Your task to perform on an android device: Toggle the flashlight Image 0: 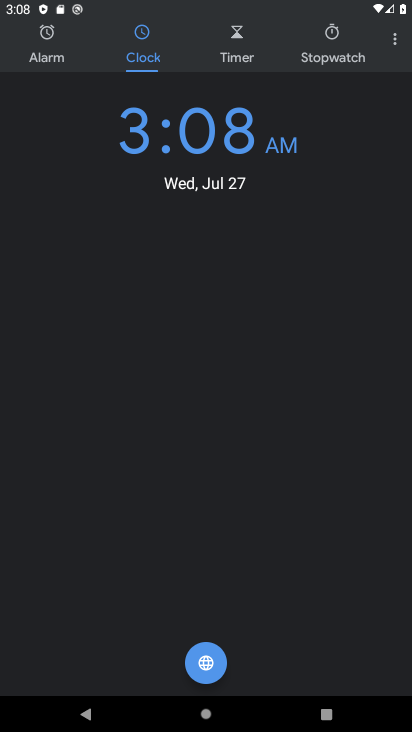
Step 0: press home button
Your task to perform on an android device: Toggle the flashlight Image 1: 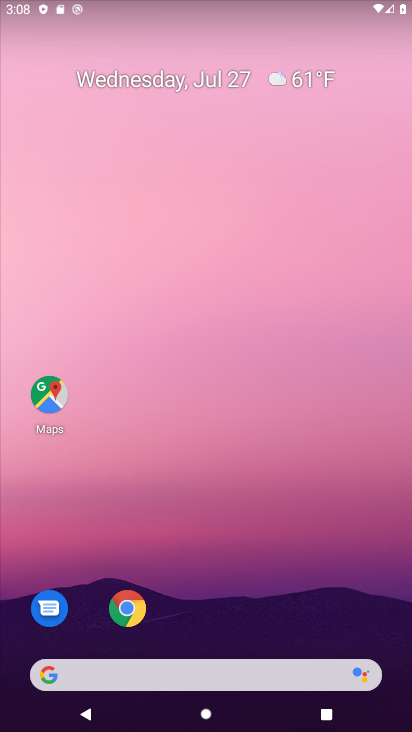
Step 1: drag from (232, 669) to (252, 158)
Your task to perform on an android device: Toggle the flashlight Image 2: 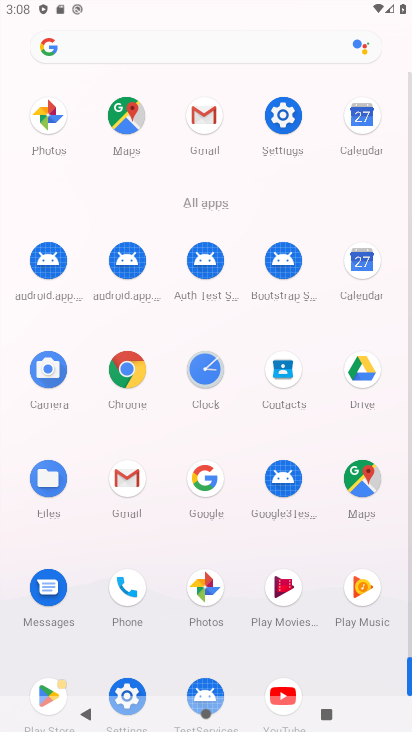
Step 2: click (280, 120)
Your task to perform on an android device: Toggle the flashlight Image 3: 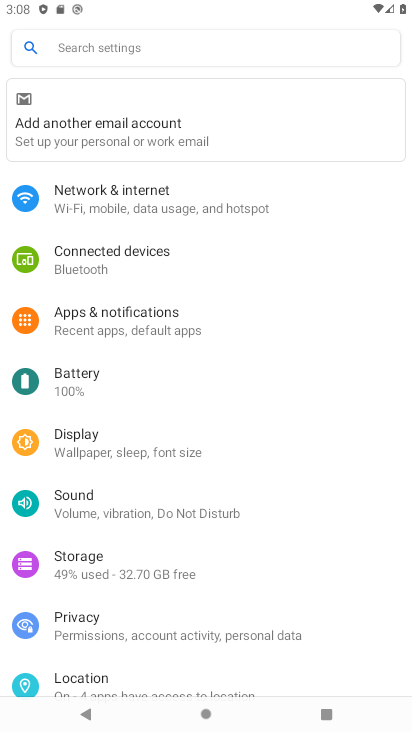
Step 3: click (130, 670)
Your task to perform on an android device: Toggle the flashlight Image 4: 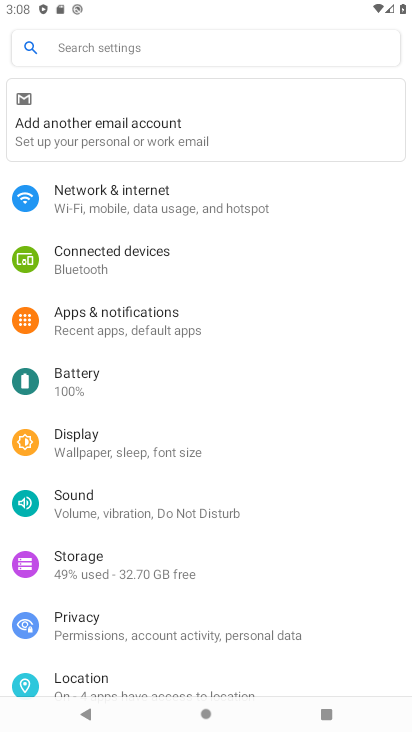
Step 4: task complete